Your task to perform on an android device: Add "bose quietcomfort 35" to the cart on target.com Image 0: 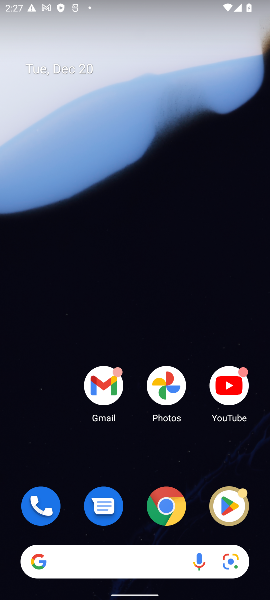
Step 0: click (165, 497)
Your task to perform on an android device: Add "bose quietcomfort 35" to the cart on target.com Image 1: 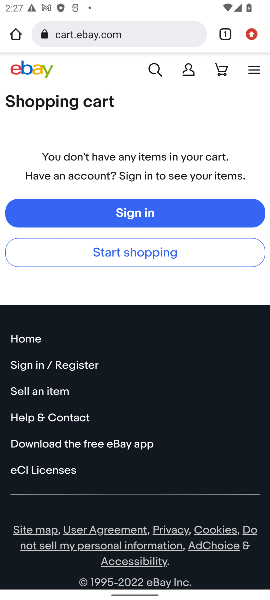
Step 1: click (154, 69)
Your task to perform on an android device: Add "bose quietcomfort 35" to the cart on target.com Image 2: 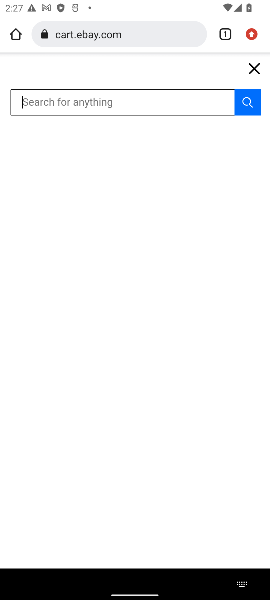
Step 2: click (98, 29)
Your task to perform on an android device: Add "bose quietcomfort 35" to the cart on target.com Image 3: 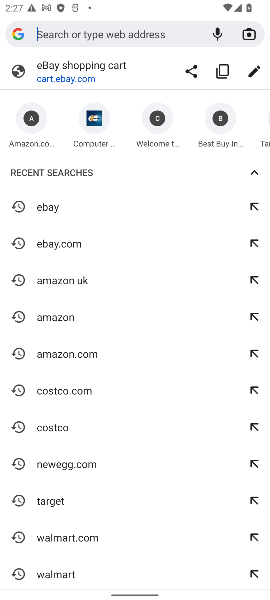
Step 3: click (52, 500)
Your task to perform on an android device: Add "bose quietcomfort 35" to the cart on target.com Image 4: 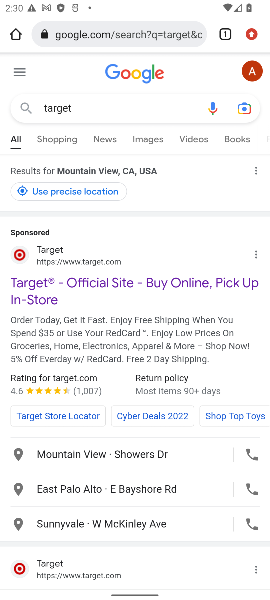
Step 4: click (153, 282)
Your task to perform on an android device: Add "bose quietcomfort 35" to the cart on target.com Image 5: 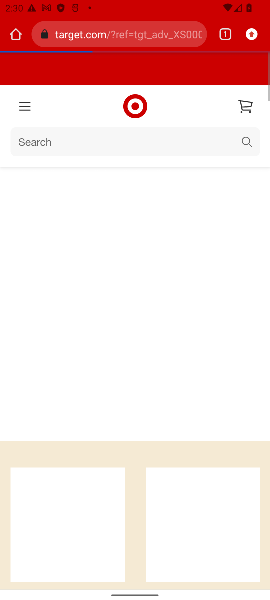
Step 5: task complete